Your task to perform on an android device: change the clock display to show seconds Image 0: 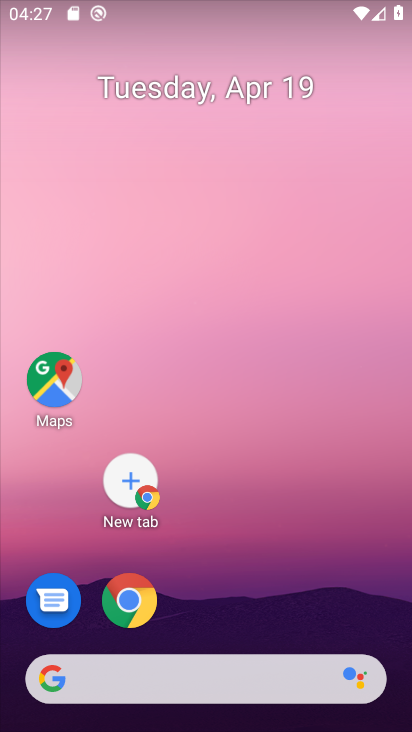
Step 0: drag from (201, 618) to (85, 3)
Your task to perform on an android device: change the clock display to show seconds Image 1: 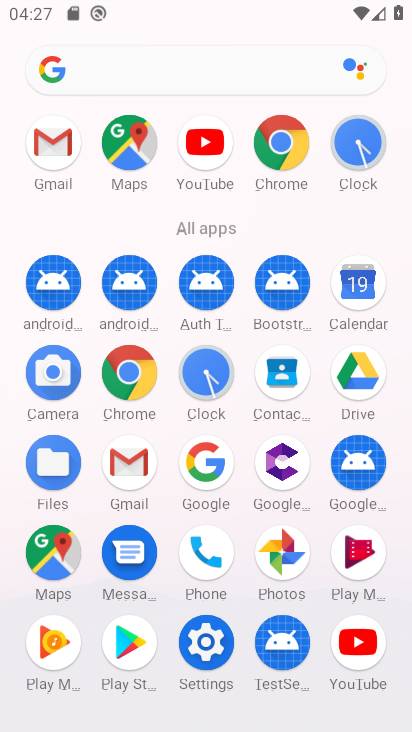
Step 1: click (359, 129)
Your task to perform on an android device: change the clock display to show seconds Image 2: 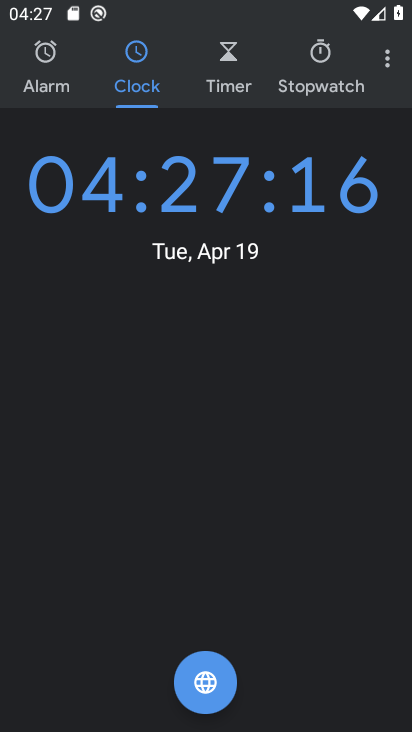
Step 2: click (395, 70)
Your task to perform on an android device: change the clock display to show seconds Image 3: 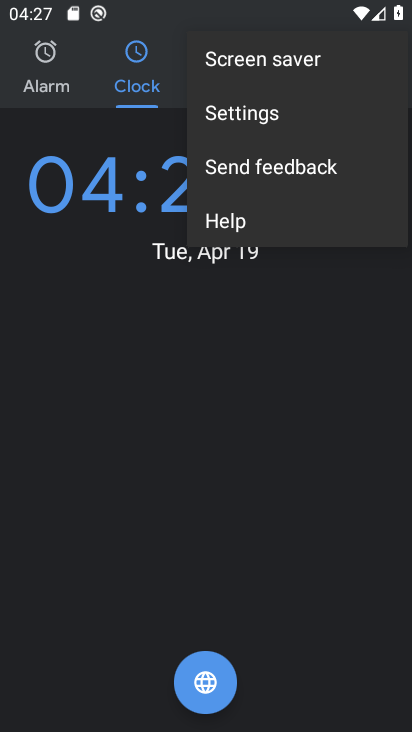
Step 3: click (284, 121)
Your task to perform on an android device: change the clock display to show seconds Image 4: 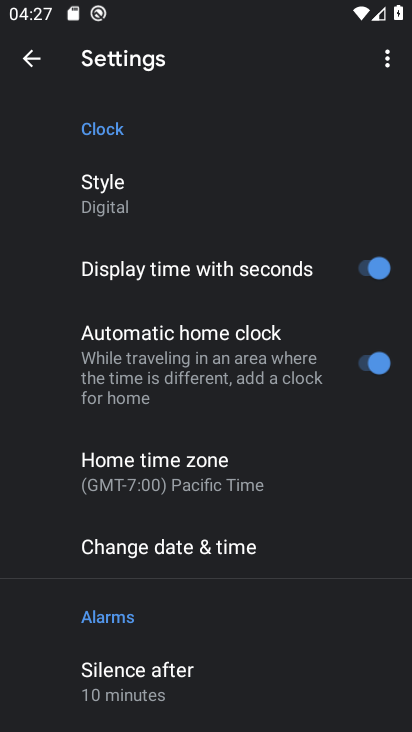
Step 4: task complete